Your task to perform on an android device: Go to battery settings Image 0: 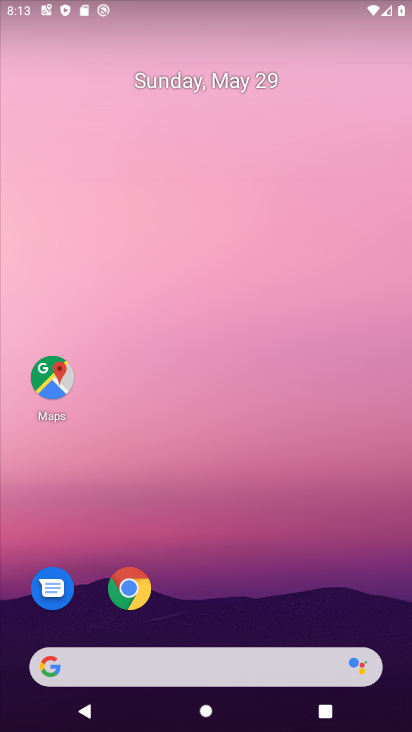
Step 0: drag from (227, 636) to (205, 261)
Your task to perform on an android device: Go to battery settings Image 1: 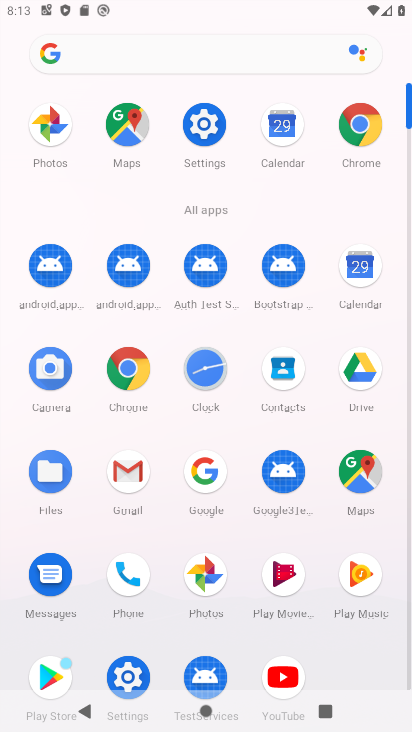
Step 1: click (188, 133)
Your task to perform on an android device: Go to battery settings Image 2: 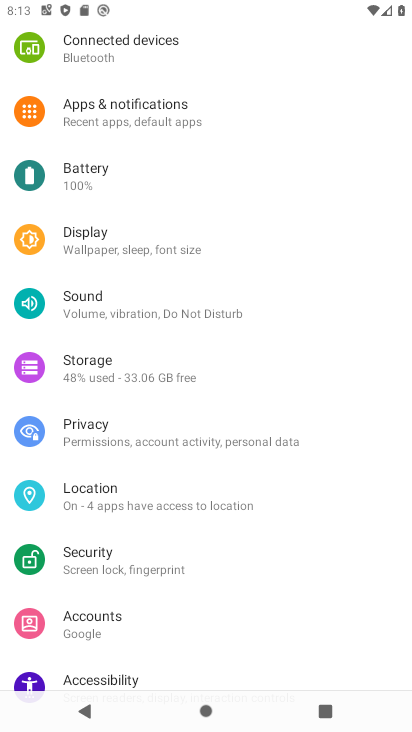
Step 2: click (103, 178)
Your task to perform on an android device: Go to battery settings Image 3: 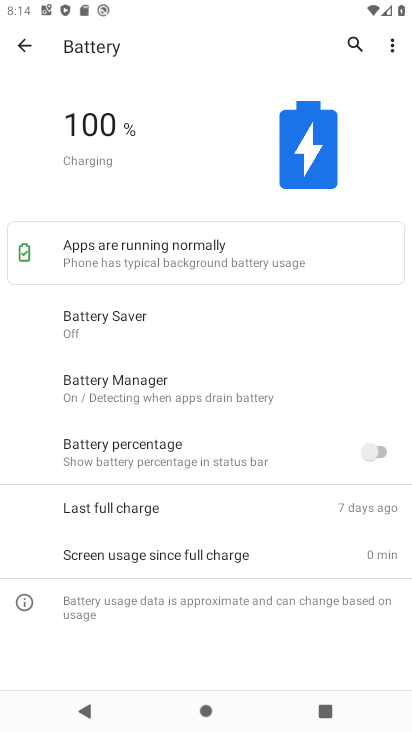
Step 3: task complete